Your task to perform on an android device: Go to location settings Image 0: 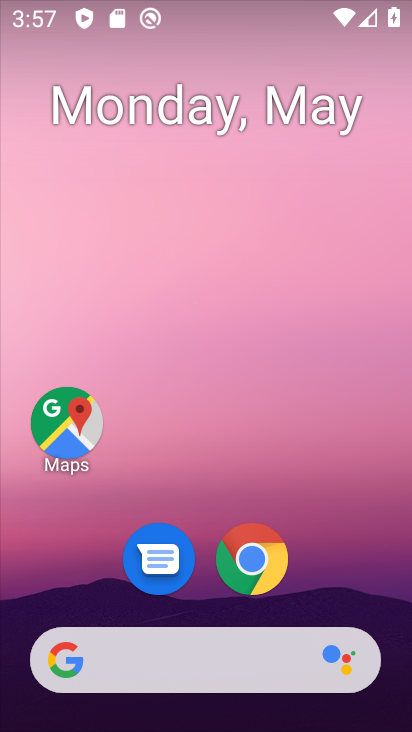
Step 0: drag from (328, 560) to (200, 5)
Your task to perform on an android device: Go to location settings Image 1: 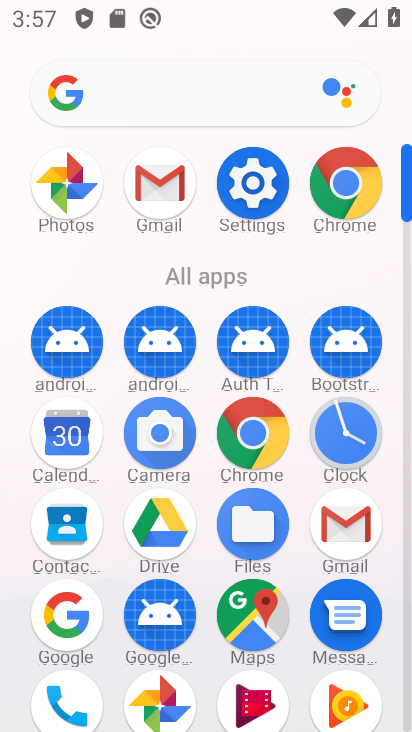
Step 1: drag from (15, 629) to (11, 198)
Your task to perform on an android device: Go to location settings Image 2: 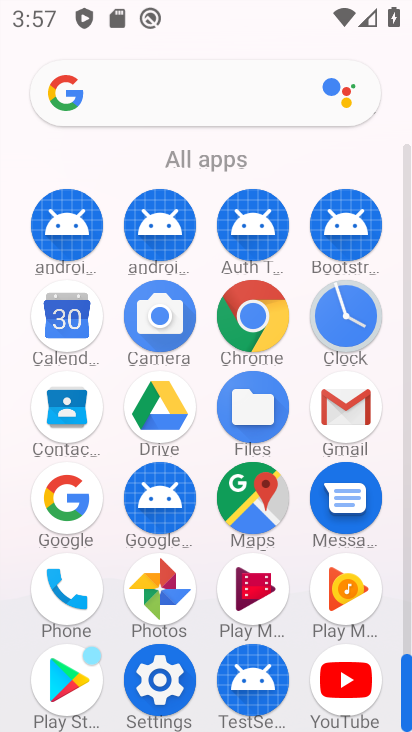
Step 2: click (157, 679)
Your task to perform on an android device: Go to location settings Image 3: 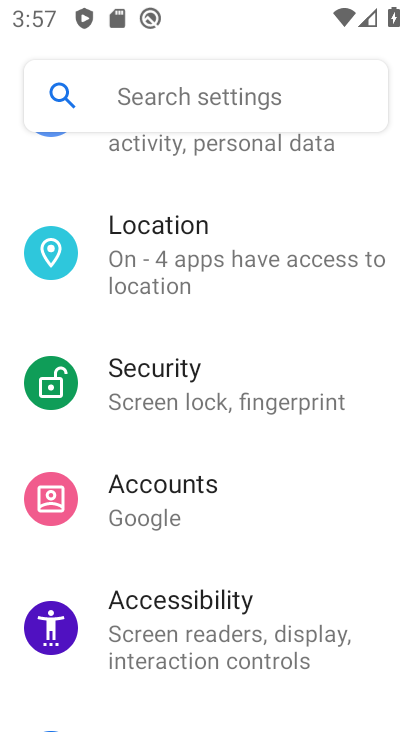
Step 3: click (209, 242)
Your task to perform on an android device: Go to location settings Image 4: 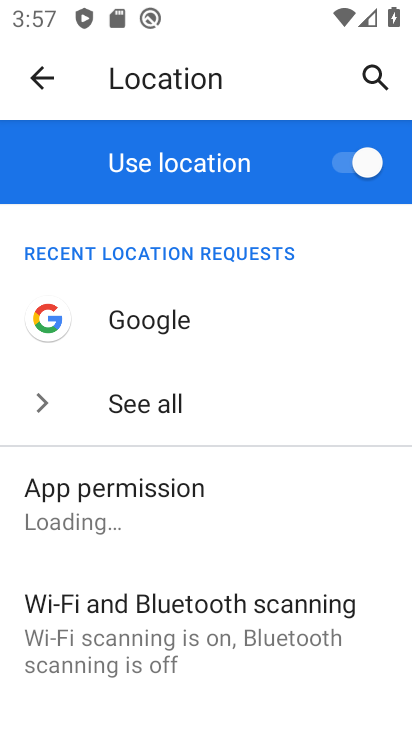
Step 4: drag from (270, 563) to (257, 192)
Your task to perform on an android device: Go to location settings Image 5: 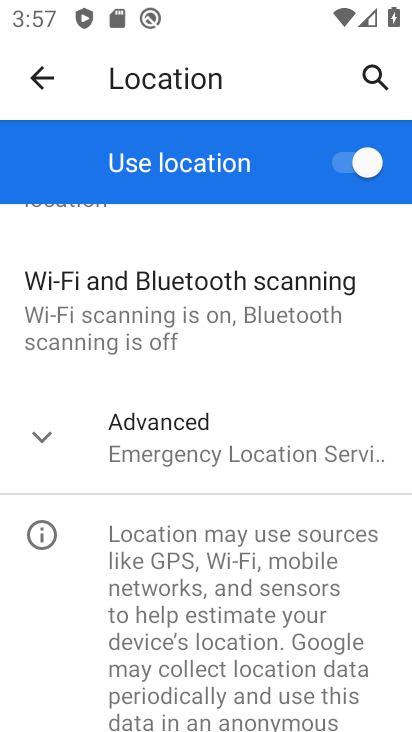
Step 5: drag from (231, 585) to (251, 208)
Your task to perform on an android device: Go to location settings Image 6: 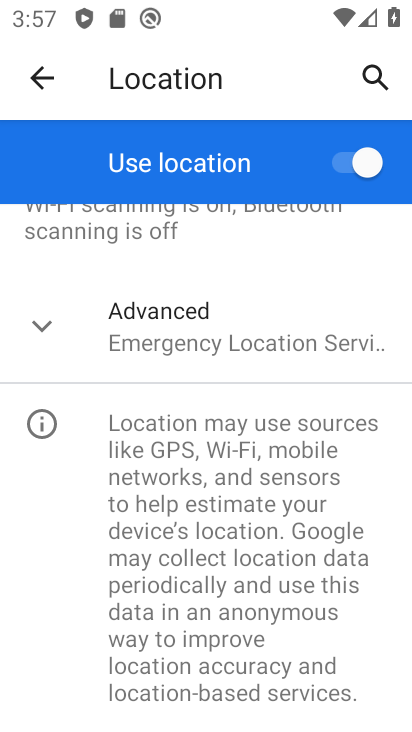
Step 6: drag from (229, 545) to (227, 266)
Your task to perform on an android device: Go to location settings Image 7: 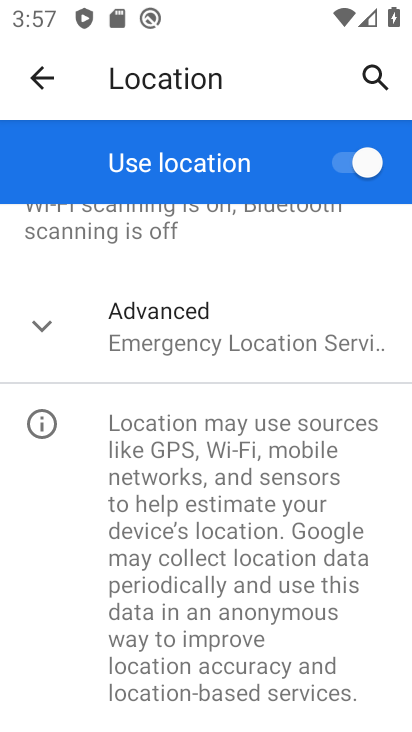
Step 7: drag from (229, 536) to (229, 277)
Your task to perform on an android device: Go to location settings Image 8: 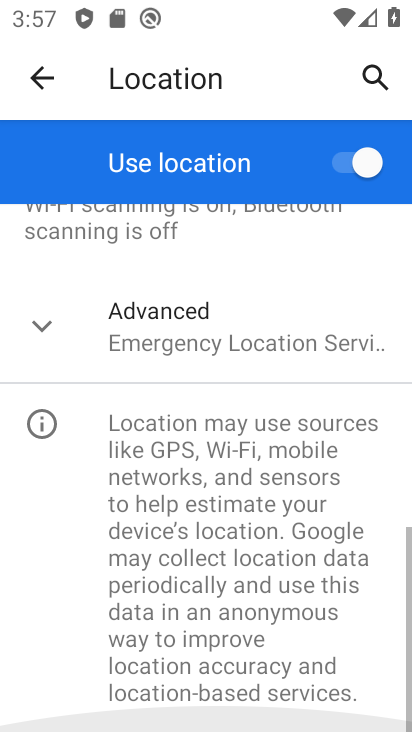
Step 8: click (52, 322)
Your task to perform on an android device: Go to location settings Image 9: 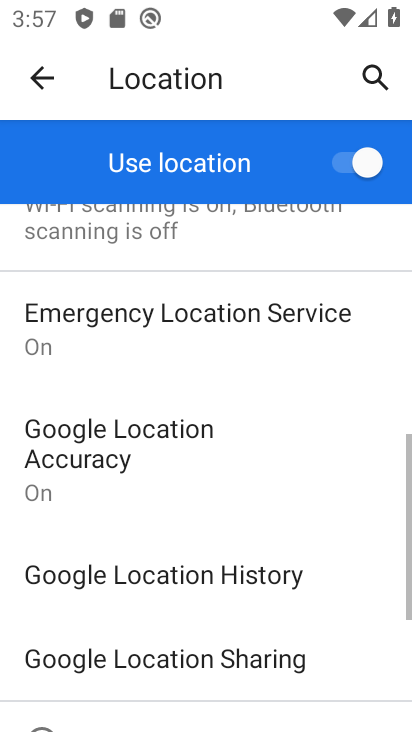
Step 9: task complete